Your task to perform on an android device: turn smart compose on in the gmail app Image 0: 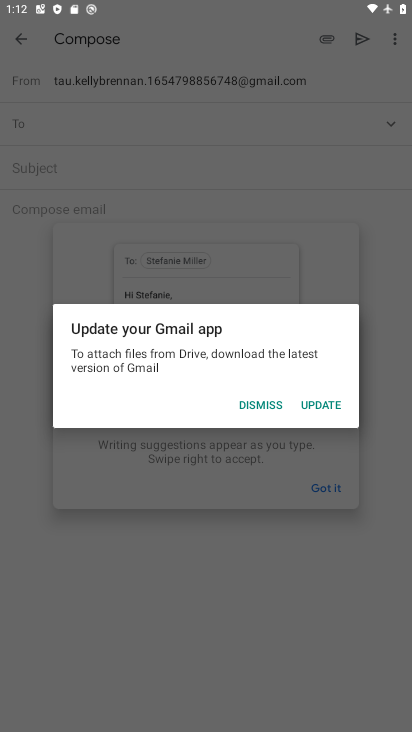
Step 0: press home button
Your task to perform on an android device: turn smart compose on in the gmail app Image 1: 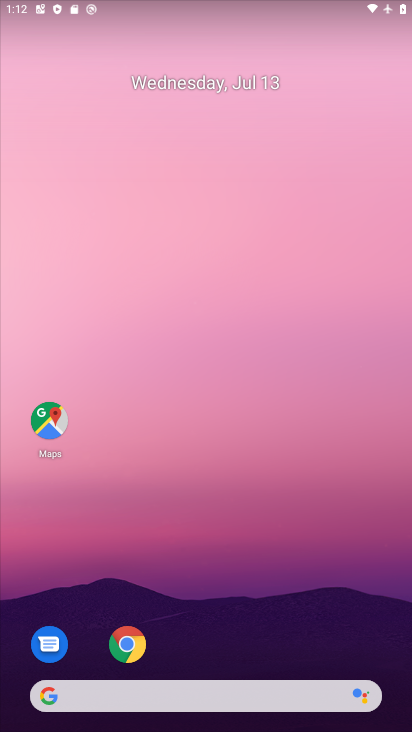
Step 1: drag from (283, 571) to (276, 81)
Your task to perform on an android device: turn smart compose on in the gmail app Image 2: 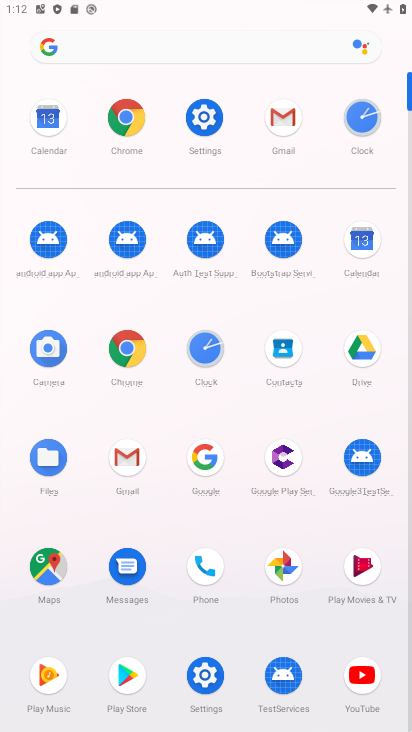
Step 2: click (274, 118)
Your task to perform on an android device: turn smart compose on in the gmail app Image 3: 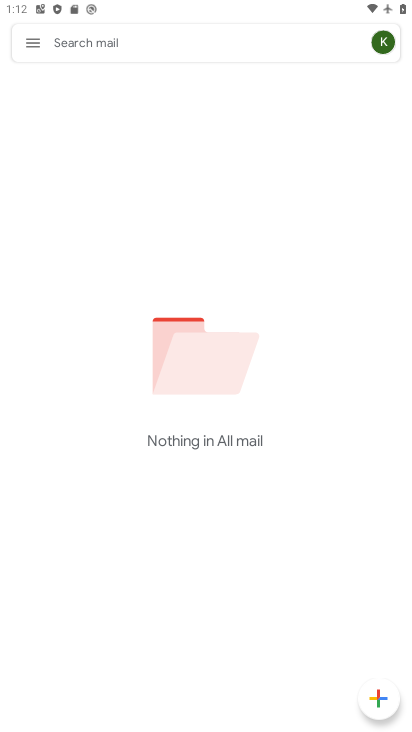
Step 3: click (32, 37)
Your task to perform on an android device: turn smart compose on in the gmail app Image 4: 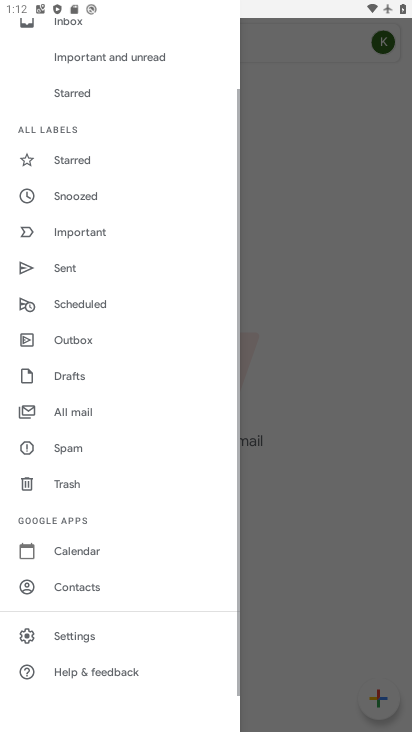
Step 4: click (102, 648)
Your task to perform on an android device: turn smart compose on in the gmail app Image 5: 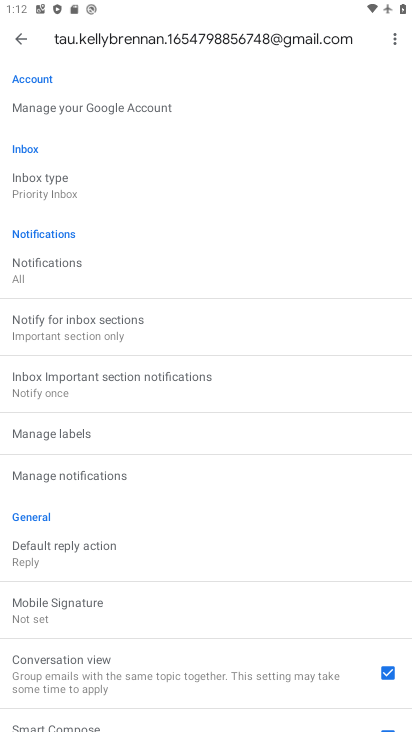
Step 5: task complete